Your task to perform on an android device: Go to notification settings Image 0: 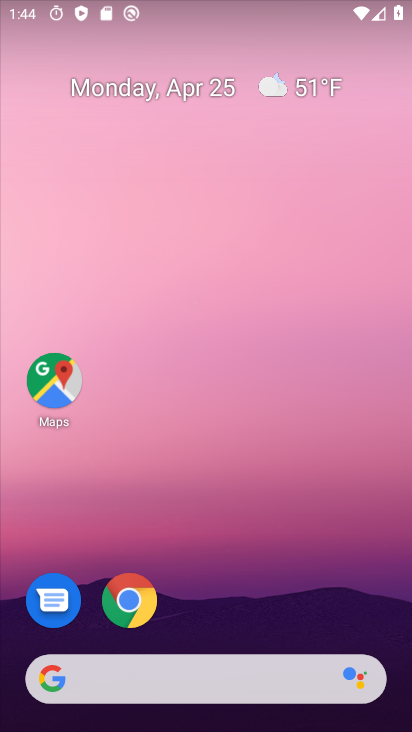
Step 0: drag from (184, 643) to (332, 45)
Your task to perform on an android device: Go to notification settings Image 1: 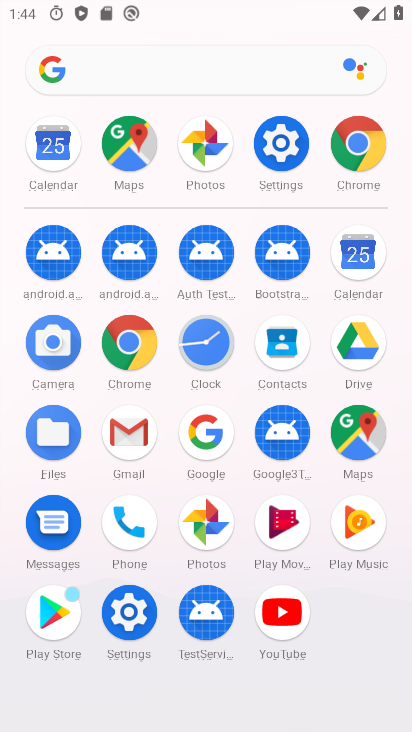
Step 1: click (283, 146)
Your task to perform on an android device: Go to notification settings Image 2: 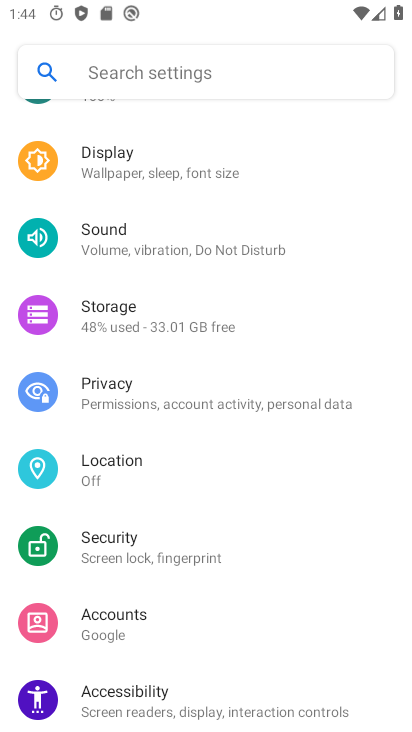
Step 2: drag from (220, 145) to (242, 581)
Your task to perform on an android device: Go to notification settings Image 3: 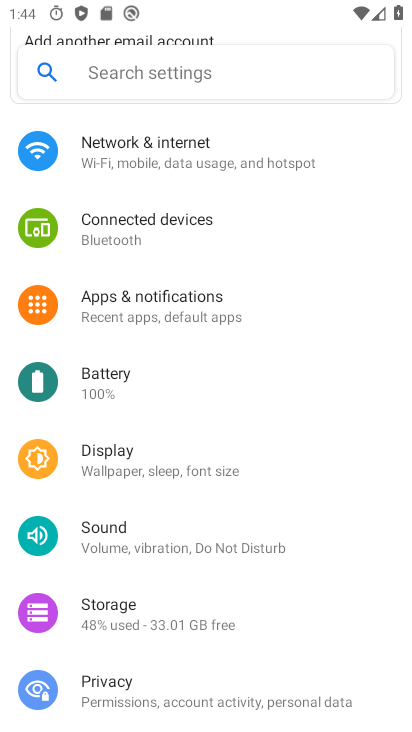
Step 3: click (171, 303)
Your task to perform on an android device: Go to notification settings Image 4: 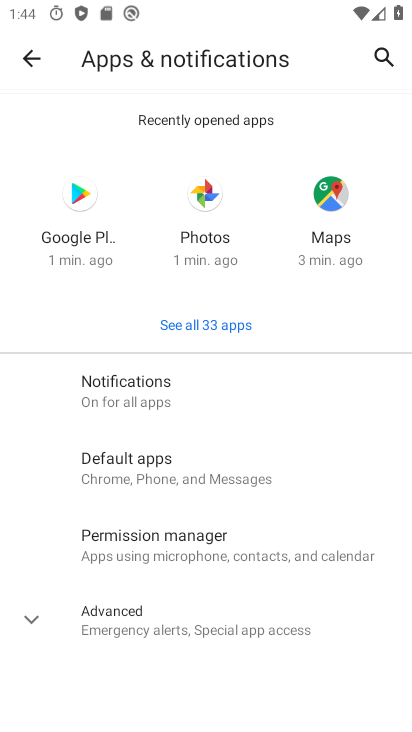
Step 4: click (149, 400)
Your task to perform on an android device: Go to notification settings Image 5: 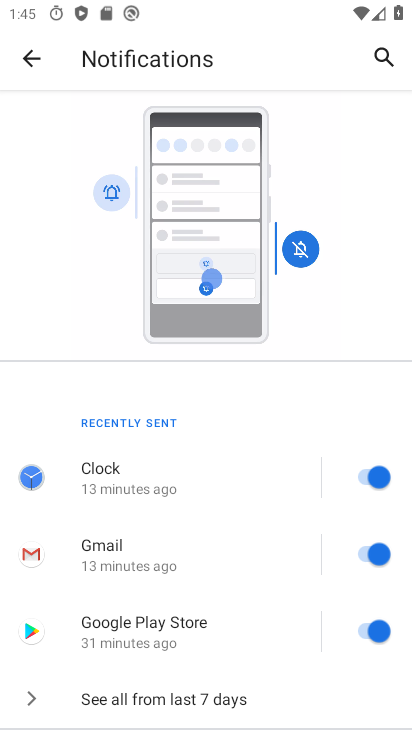
Step 5: task complete